Your task to perform on an android device: move a message to another label in the gmail app Image 0: 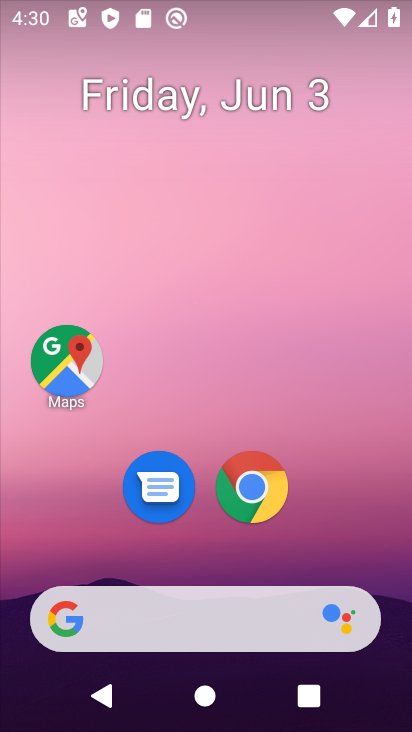
Step 0: drag from (212, 573) to (275, 224)
Your task to perform on an android device: move a message to another label in the gmail app Image 1: 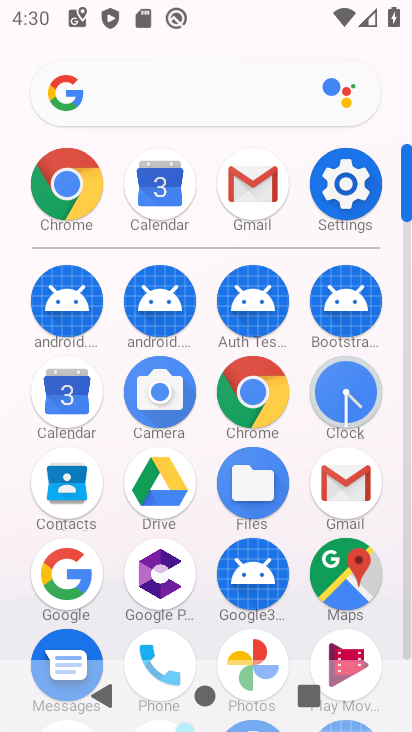
Step 1: click (336, 488)
Your task to perform on an android device: move a message to another label in the gmail app Image 2: 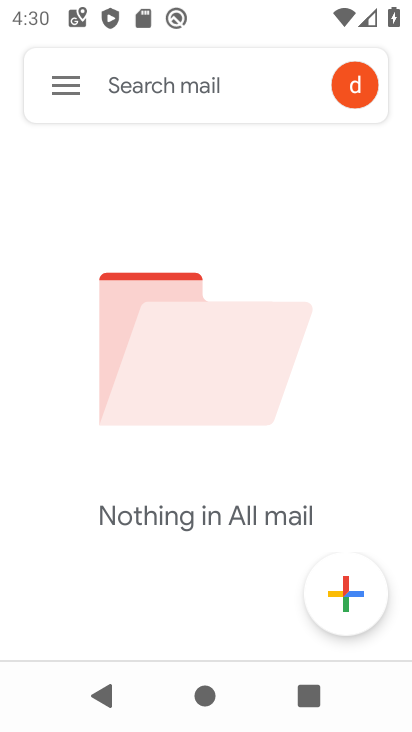
Step 2: click (240, 315)
Your task to perform on an android device: move a message to another label in the gmail app Image 3: 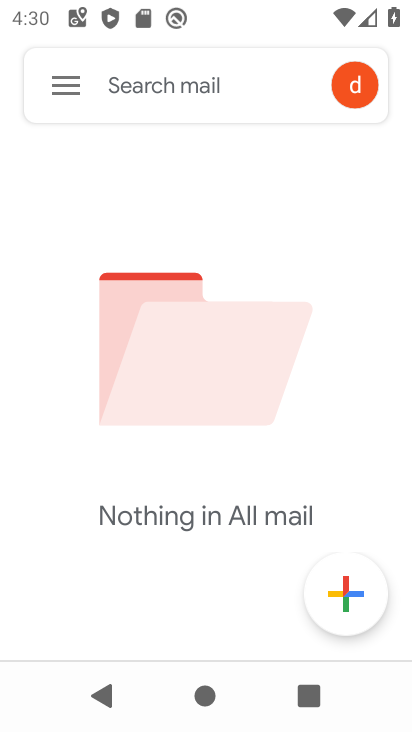
Step 3: drag from (215, 488) to (265, 178)
Your task to perform on an android device: move a message to another label in the gmail app Image 4: 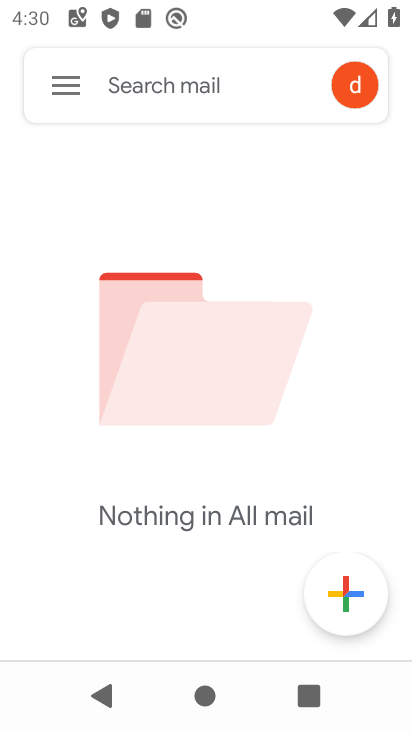
Step 4: drag from (225, 535) to (277, 247)
Your task to perform on an android device: move a message to another label in the gmail app Image 5: 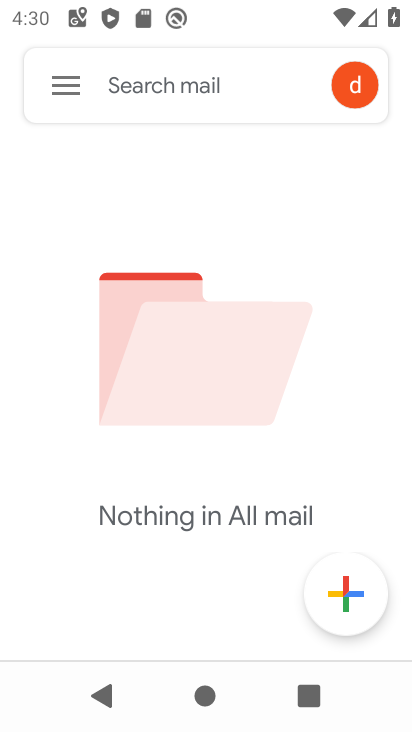
Step 5: click (62, 84)
Your task to perform on an android device: move a message to another label in the gmail app Image 6: 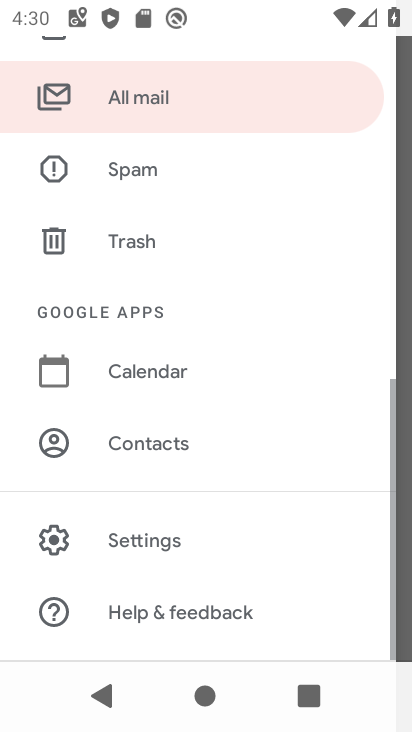
Step 6: drag from (143, 188) to (292, 719)
Your task to perform on an android device: move a message to another label in the gmail app Image 7: 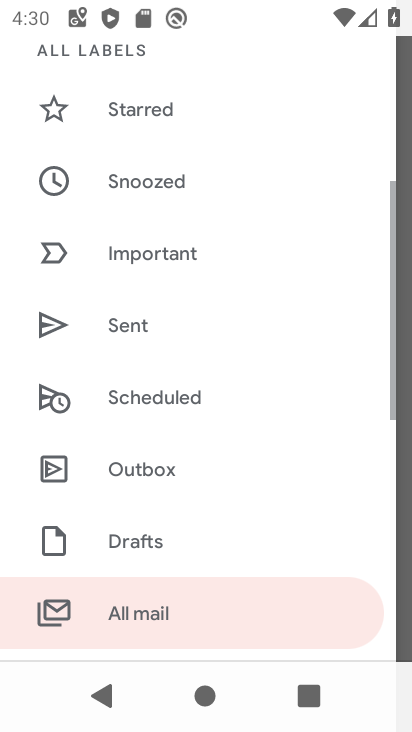
Step 7: drag from (336, 655) to (341, 497)
Your task to perform on an android device: move a message to another label in the gmail app Image 8: 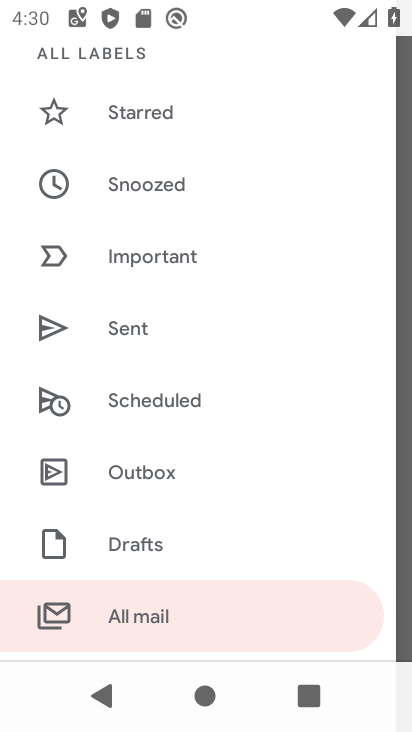
Step 8: drag from (151, 148) to (265, 599)
Your task to perform on an android device: move a message to another label in the gmail app Image 9: 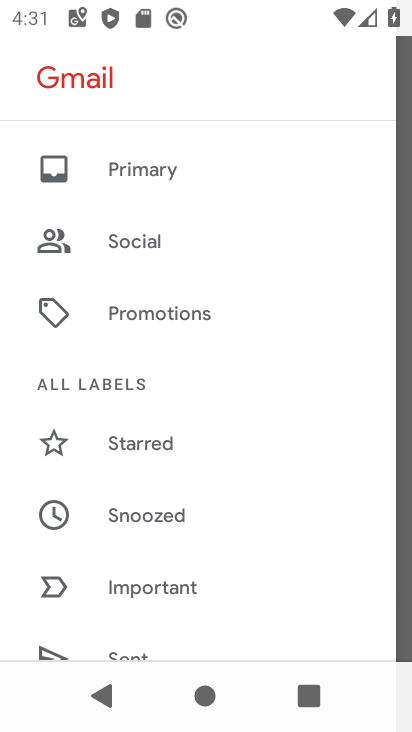
Step 9: drag from (161, 313) to (269, 598)
Your task to perform on an android device: move a message to another label in the gmail app Image 10: 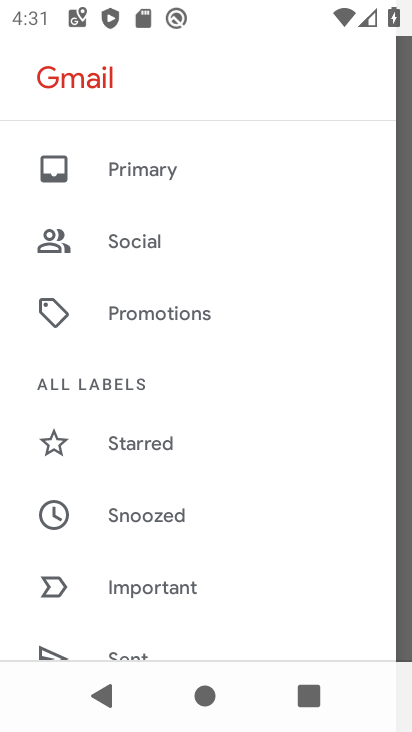
Step 10: drag from (224, 471) to (240, 224)
Your task to perform on an android device: move a message to another label in the gmail app Image 11: 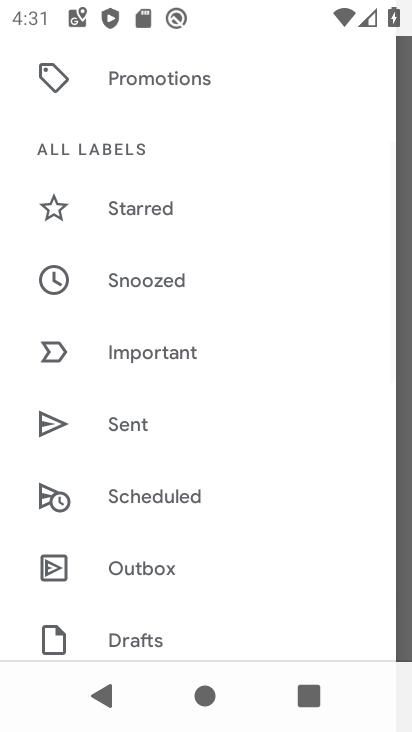
Step 11: drag from (232, 169) to (237, 680)
Your task to perform on an android device: move a message to another label in the gmail app Image 12: 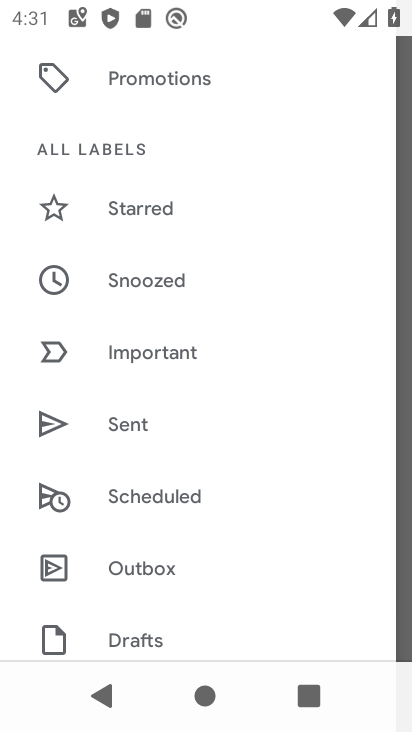
Step 12: drag from (172, 127) to (316, 563)
Your task to perform on an android device: move a message to another label in the gmail app Image 13: 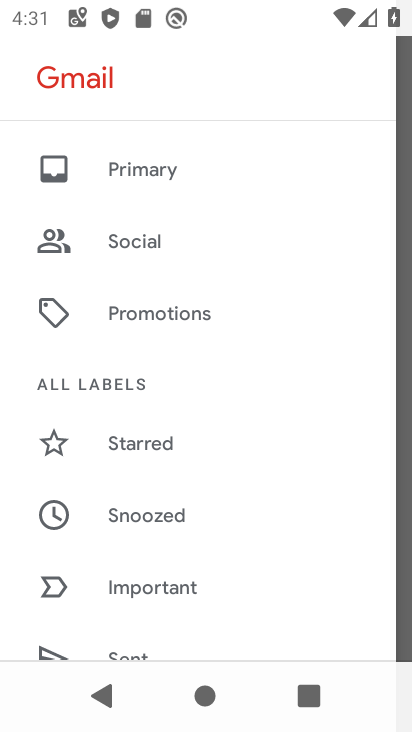
Step 13: click (221, 266)
Your task to perform on an android device: move a message to another label in the gmail app Image 14: 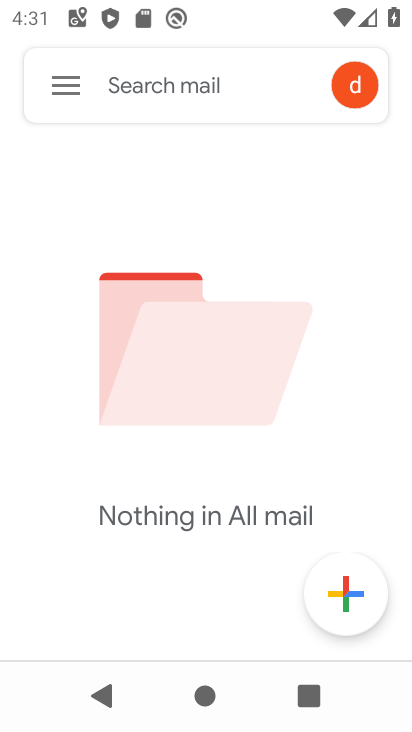
Step 14: task complete